Your task to perform on an android device: check storage Image 0: 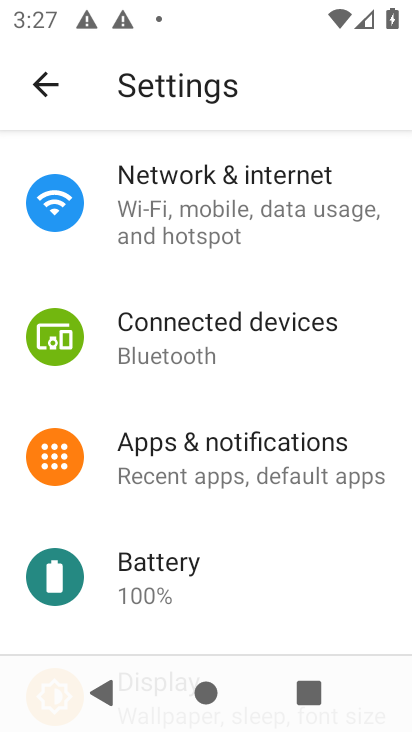
Step 0: press home button
Your task to perform on an android device: check storage Image 1: 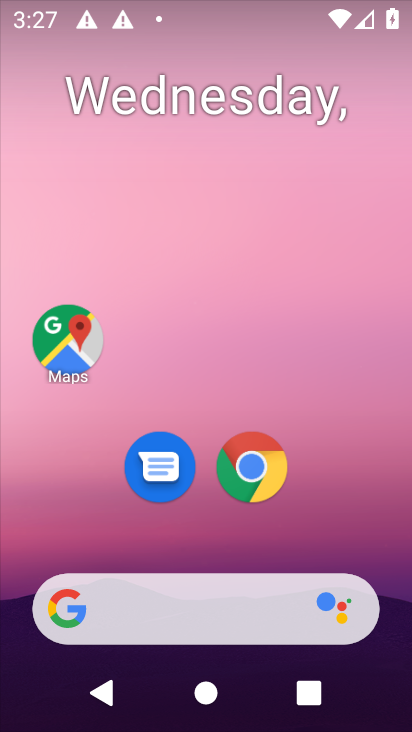
Step 1: drag from (45, 618) to (133, 499)
Your task to perform on an android device: check storage Image 2: 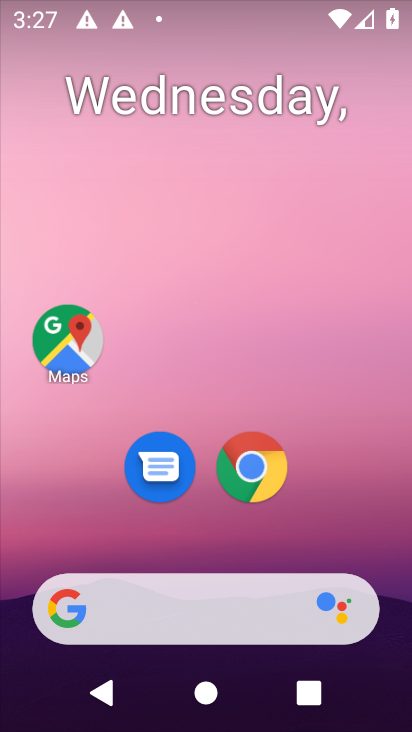
Step 2: drag from (8, 698) to (186, 287)
Your task to perform on an android device: check storage Image 3: 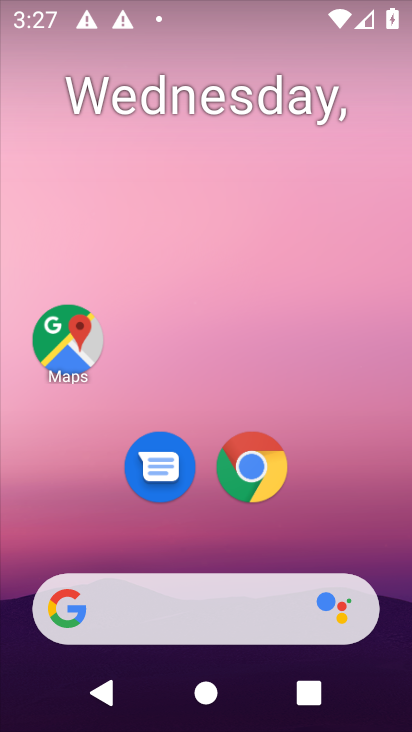
Step 3: drag from (15, 687) to (229, 174)
Your task to perform on an android device: check storage Image 4: 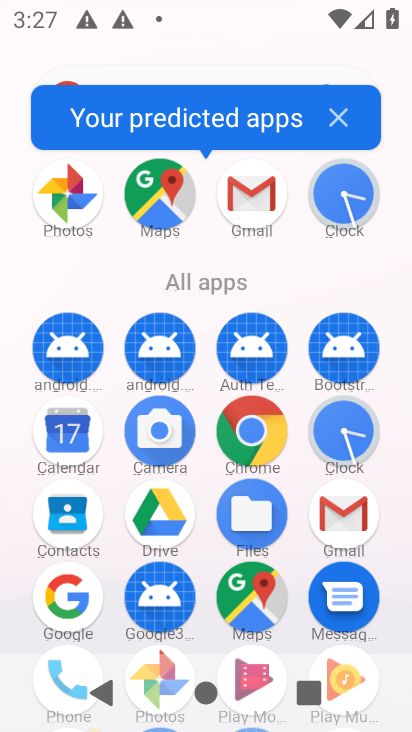
Step 4: drag from (10, 679) to (10, 440)
Your task to perform on an android device: check storage Image 5: 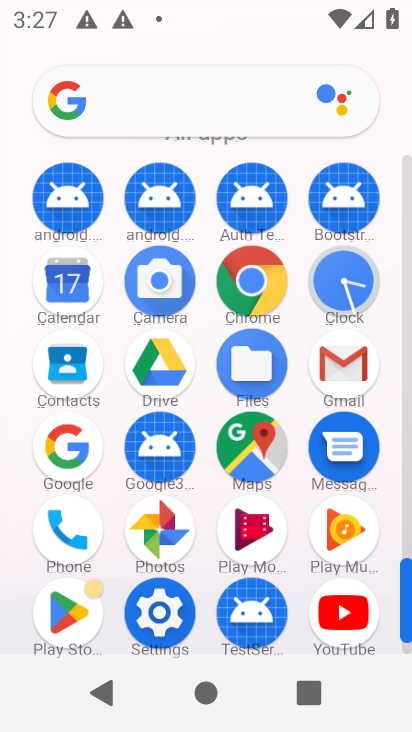
Step 5: click (160, 625)
Your task to perform on an android device: check storage Image 6: 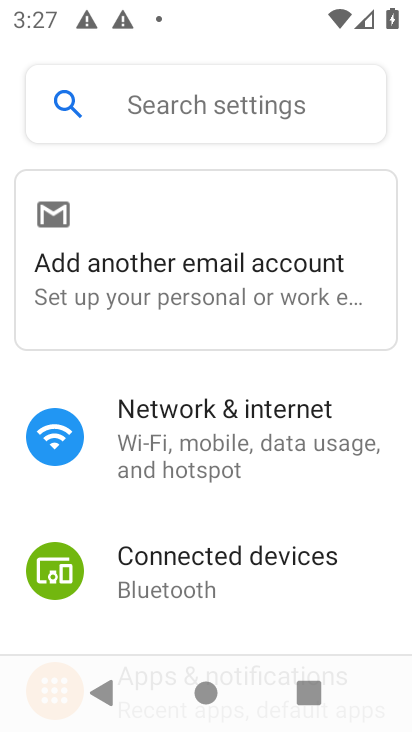
Step 6: drag from (354, 616) to (349, 355)
Your task to perform on an android device: check storage Image 7: 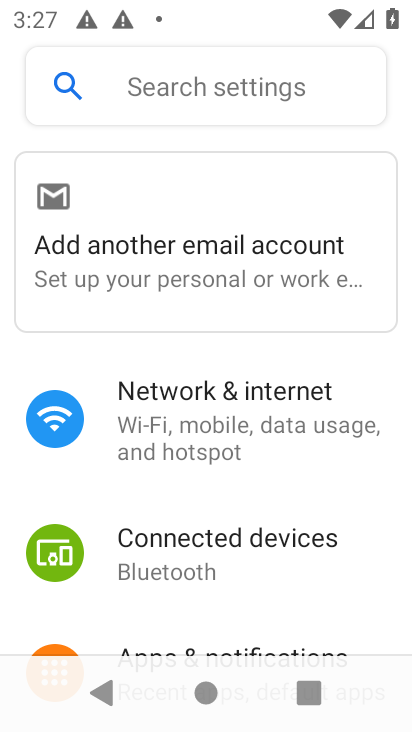
Step 7: drag from (375, 643) to (370, 209)
Your task to perform on an android device: check storage Image 8: 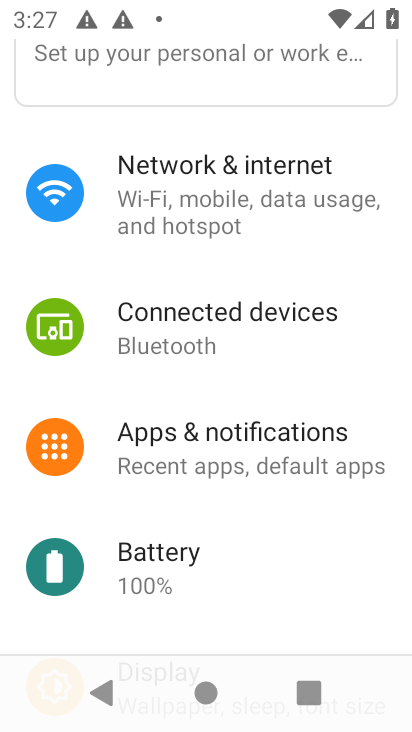
Step 8: drag from (319, 613) to (313, 274)
Your task to perform on an android device: check storage Image 9: 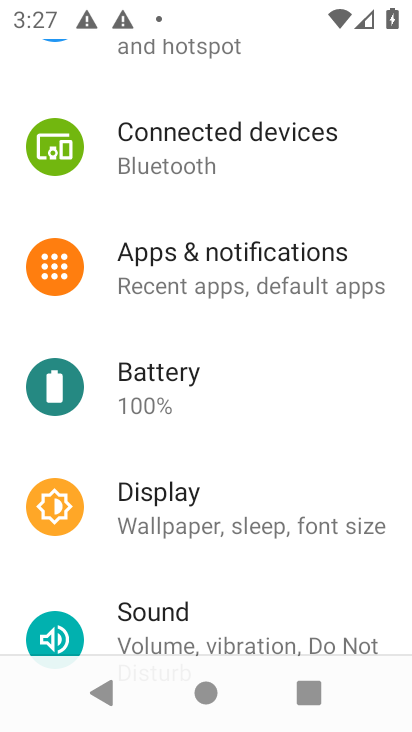
Step 9: drag from (391, 643) to (384, 388)
Your task to perform on an android device: check storage Image 10: 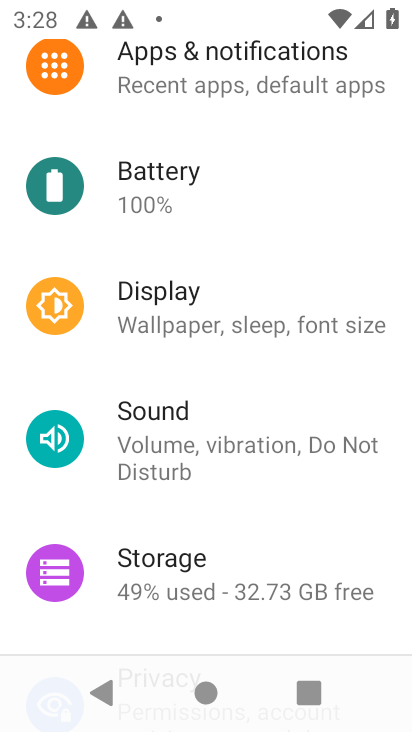
Step 10: click (200, 555)
Your task to perform on an android device: check storage Image 11: 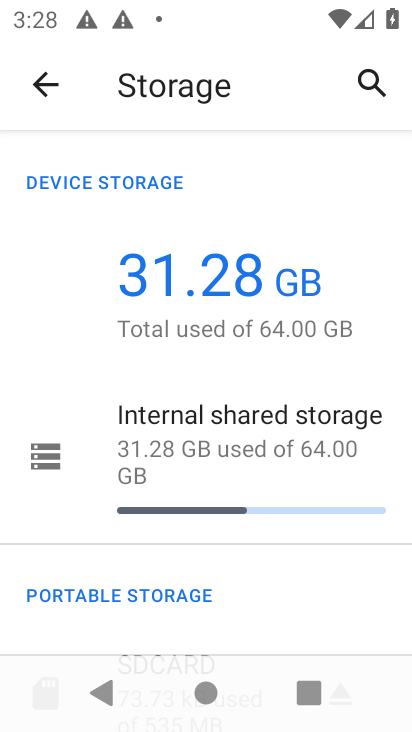
Step 11: task complete